Your task to perform on an android device: turn on data saver in the chrome app Image 0: 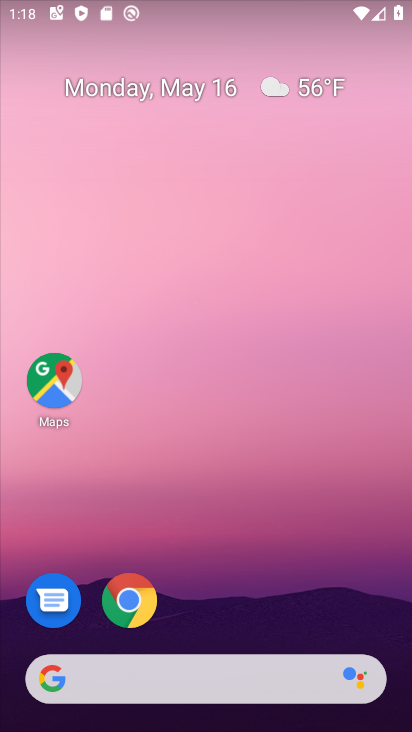
Step 0: click (135, 595)
Your task to perform on an android device: turn on data saver in the chrome app Image 1: 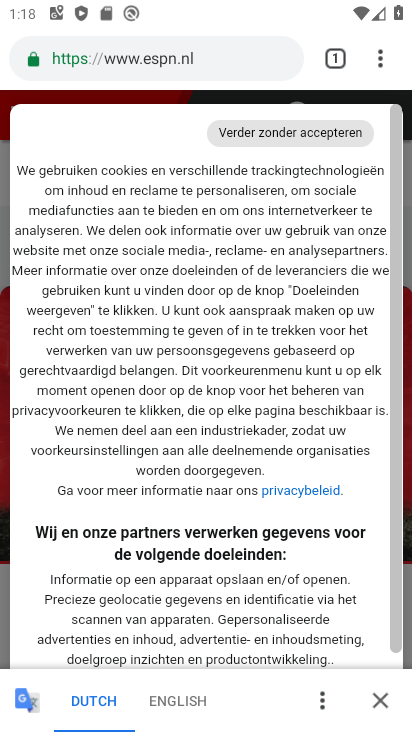
Step 1: click (391, 72)
Your task to perform on an android device: turn on data saver in the chrome app Image 2: 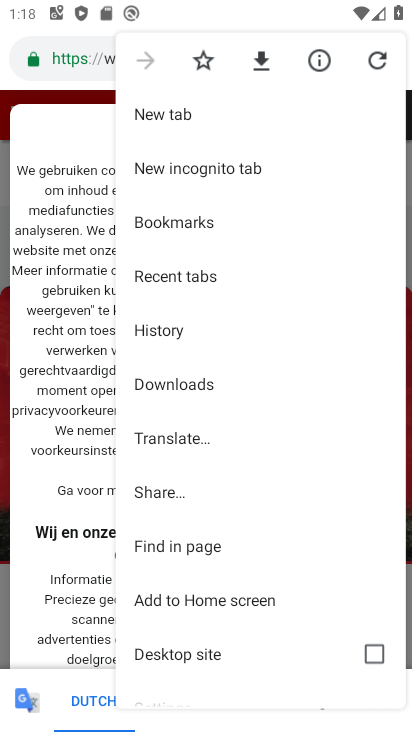
Step 2: drag from (232, 580) to (248, 257)
Your task to perform on an android device: turn on data saver in the chrome app Image 3: 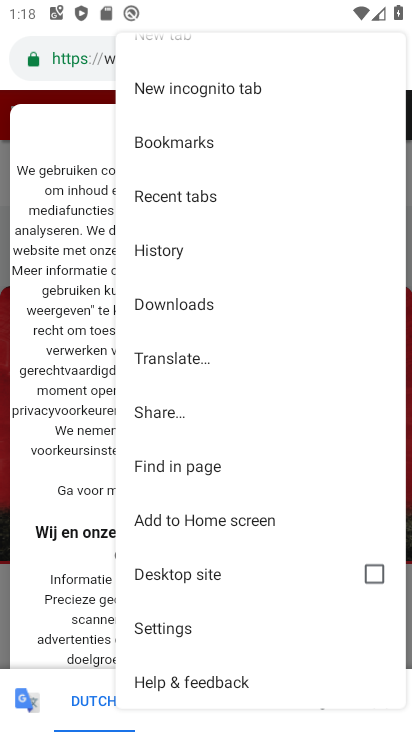
Step 3: click (172, 634)
Your task to perform on an android device: turn on data saver in the chrome app Image 4: 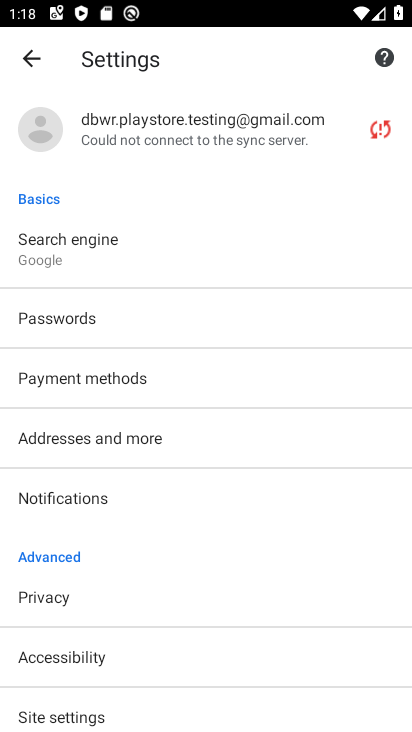
Step 4: drag from (246, 681) to (248, 322)
Your task to perform on an android device: turn on data saver in the chrome app Image 5: 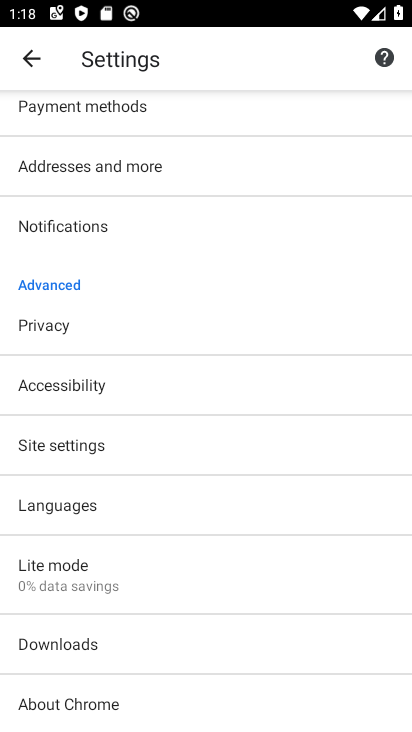
Step 5: drag from (219, 690) to (202, 337)
Your task to perform on an android device: turn on data saver in the chrome app Image 6: 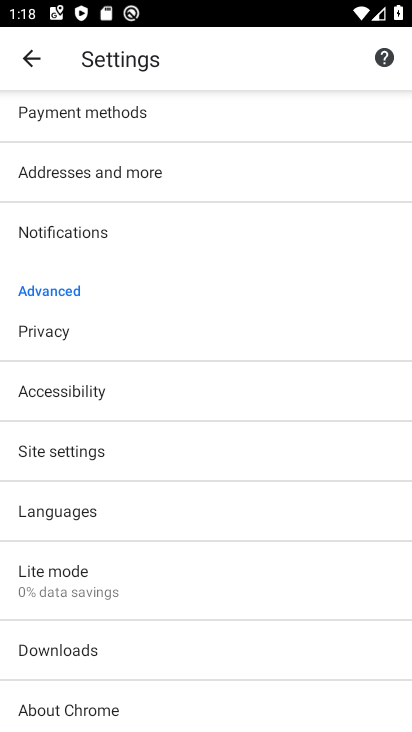
Step 6: click (97, 581)
Your task to perform on an android device: turn on data saver in the chrome app Image 7: 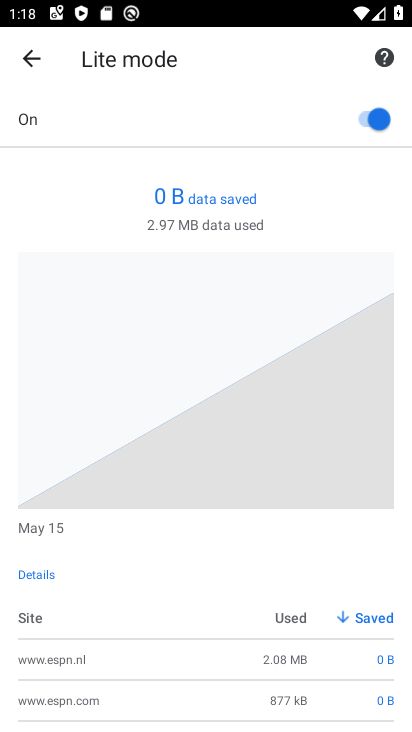
Step 7: task complete